Your task to perform on an android device: Open privacy settings Image 0: 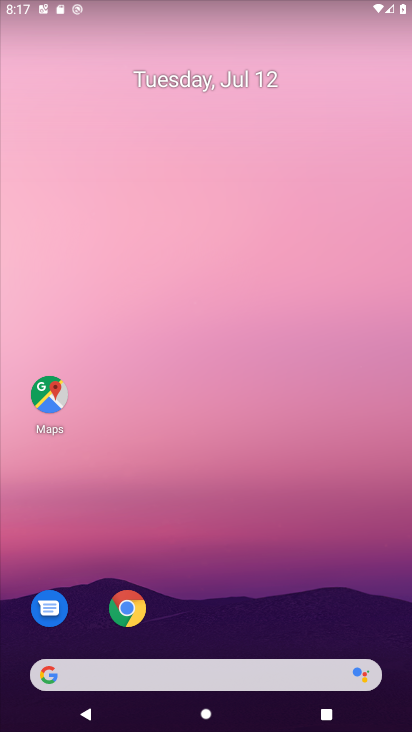
Step 0: drag from (163, 681) to (325, 245)
Your task to perform on an android device: Open privacy settings Image 1: 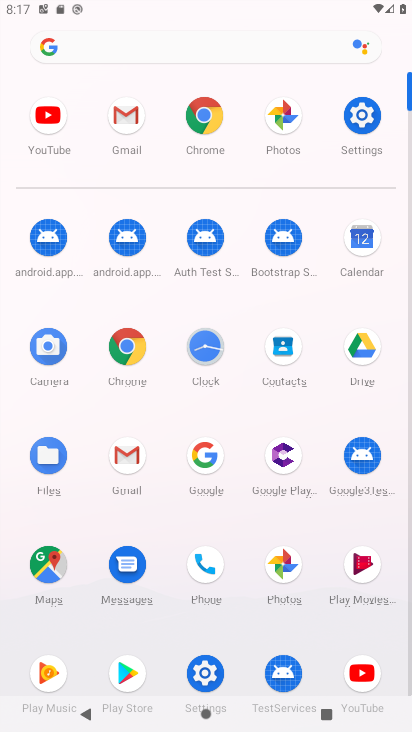
Step 1: click (363, 110)
Your task to perform on an android device: Open privacy settings Image 2: 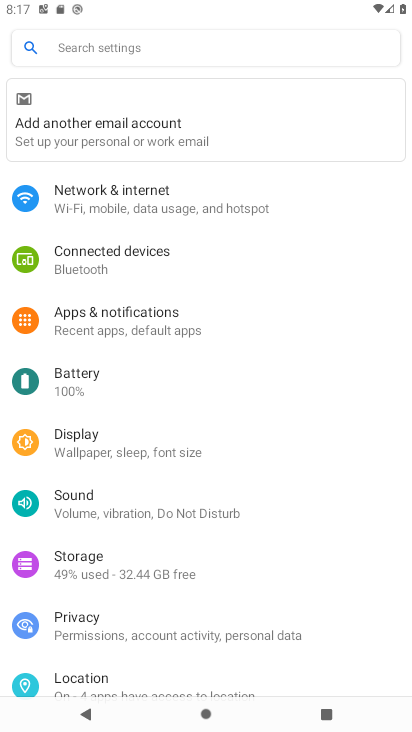
Step 2: click (95, 627)
Your task to perform on an android device: Open privacy settings Image 3: 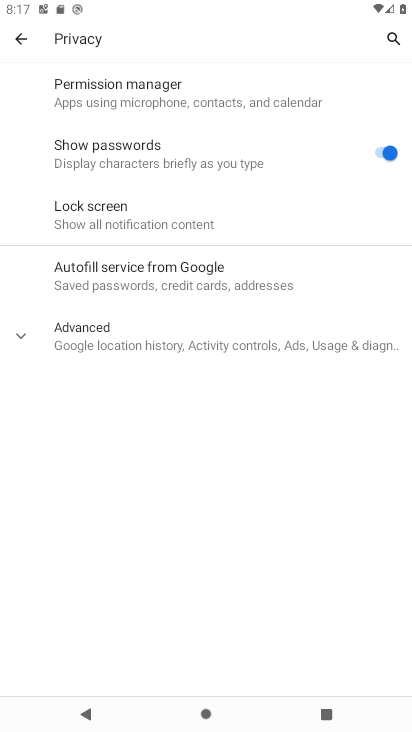
Step 3: task complete